Your task to perform on an android device: delete browsing data in the chrome app Image 0: 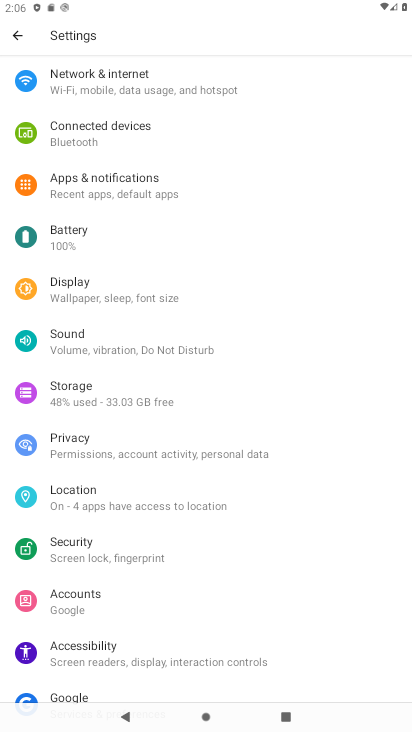
Step 0: press home button
Your task to perform on an android device: delete browsing data in the chrome app Image 1: 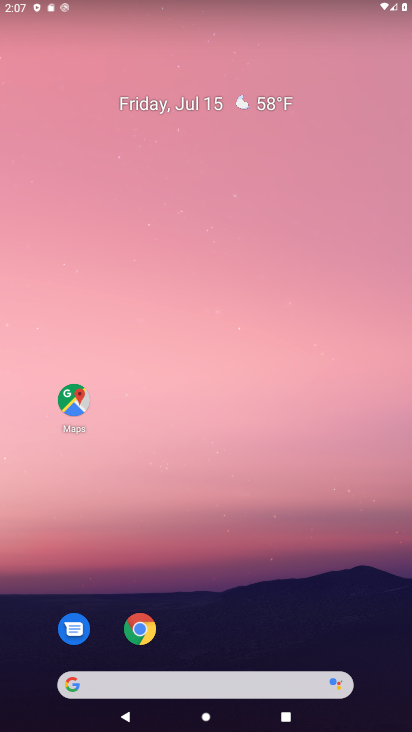
Step 1: click (142, 624)
Your task to perform on an android device: delete browsing data in the chrome app Image 2: 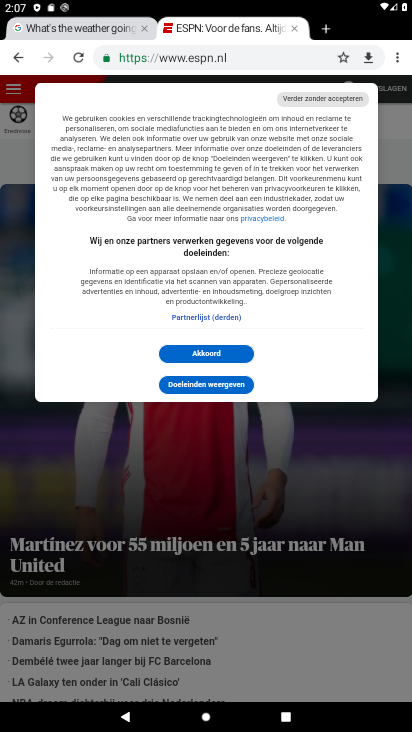
Step 2: click (401, 59)
Your task to perform on an android device: delete browsing data in the chrome app Image 3: 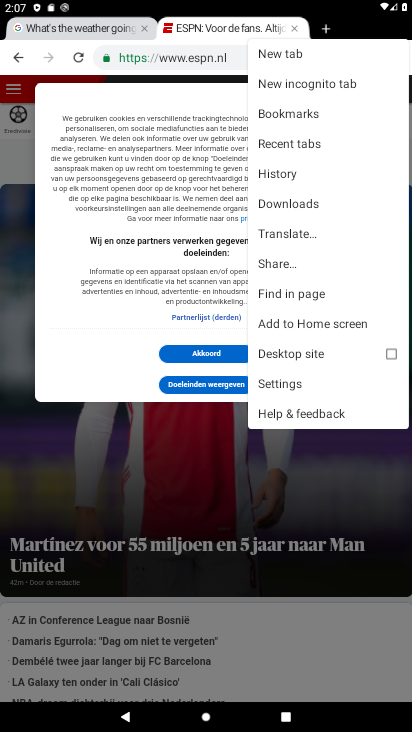
Step 3: click (320, 173)
Your task to perform on an android device: delete browsing data in the chrome app Image 4: 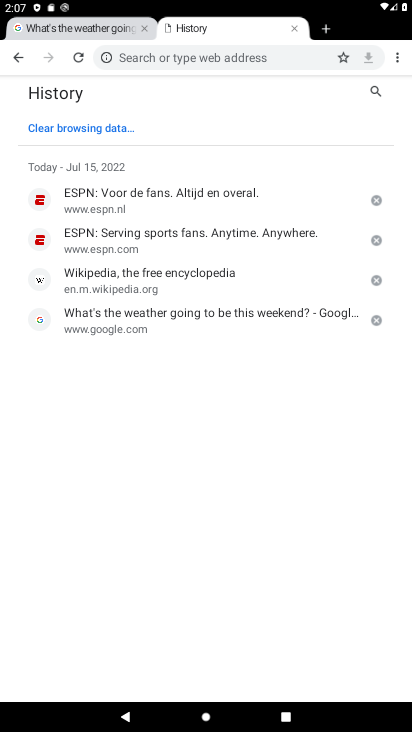
Step 4: click (114, 131)
Your task to perform on an android device: delete browsing data in the chrome app Image 5: 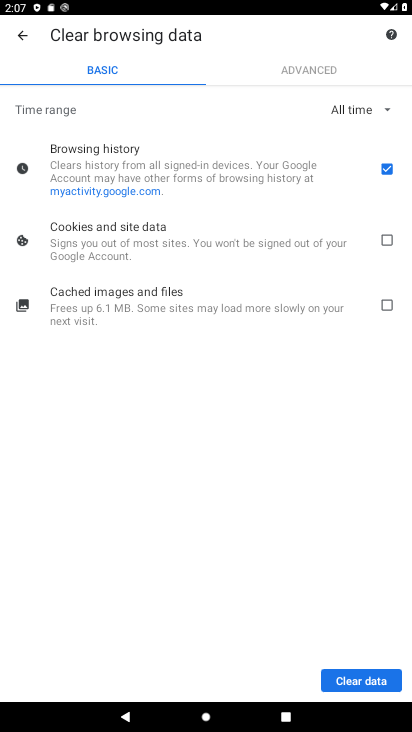
Step 5: click (392, 678)
Your task to perform on an android device: delete browsing data in the chrome app Image 6: 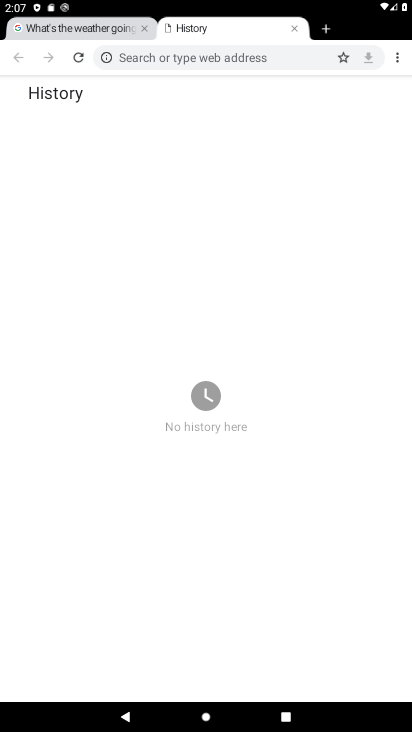
Step 6: task complete